Your task to perform on an android device: Search for sushi restaurants on Maps Image 0: 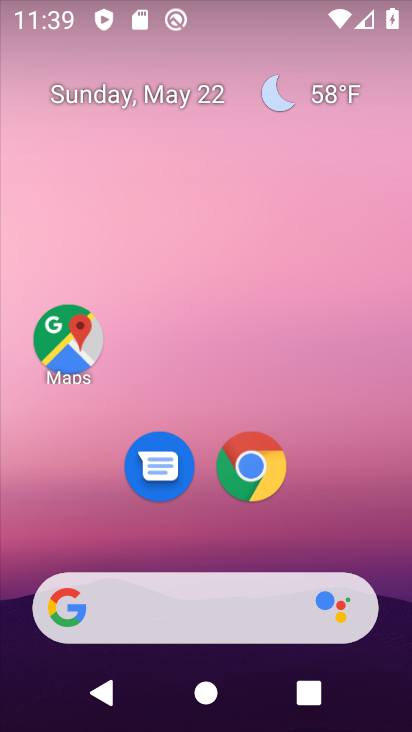
Step 0: click (70, 341)
Your task to perform on an android device: Search for sushi restaurants on Maps Image 1: 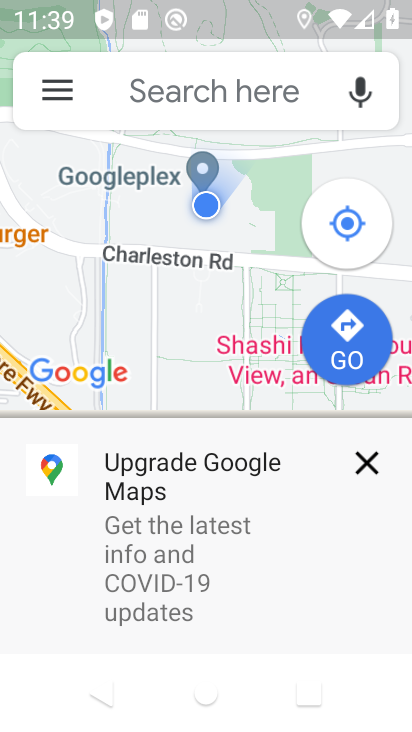
Step 1: click (204, 105)
Your task to perform on an android device: Search for sushi restaurants on Maps Image 2: 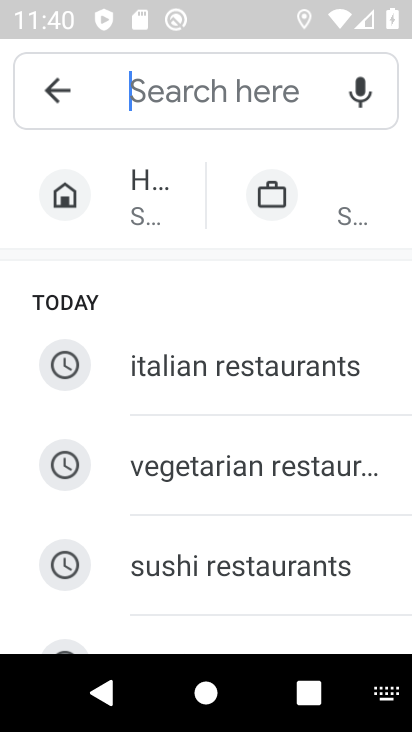
Step 2: click (208, 568)
Your task to perform on an android device: Search for sushi restaurants on Maps Image 3: 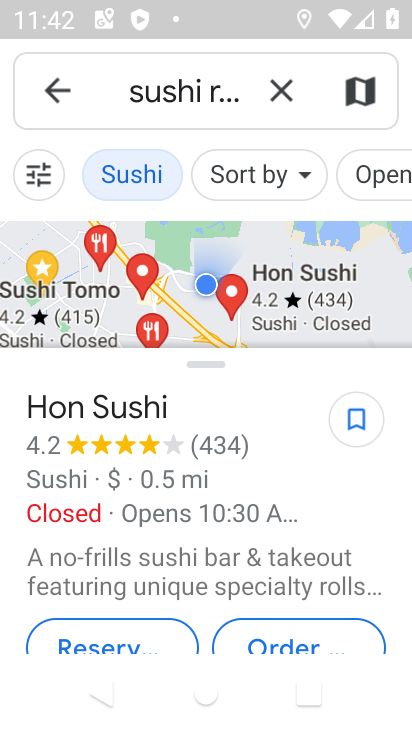
Step 3: task complete